Your task to perform on an android device: turn on priority inbox in the gmail app Image 0: 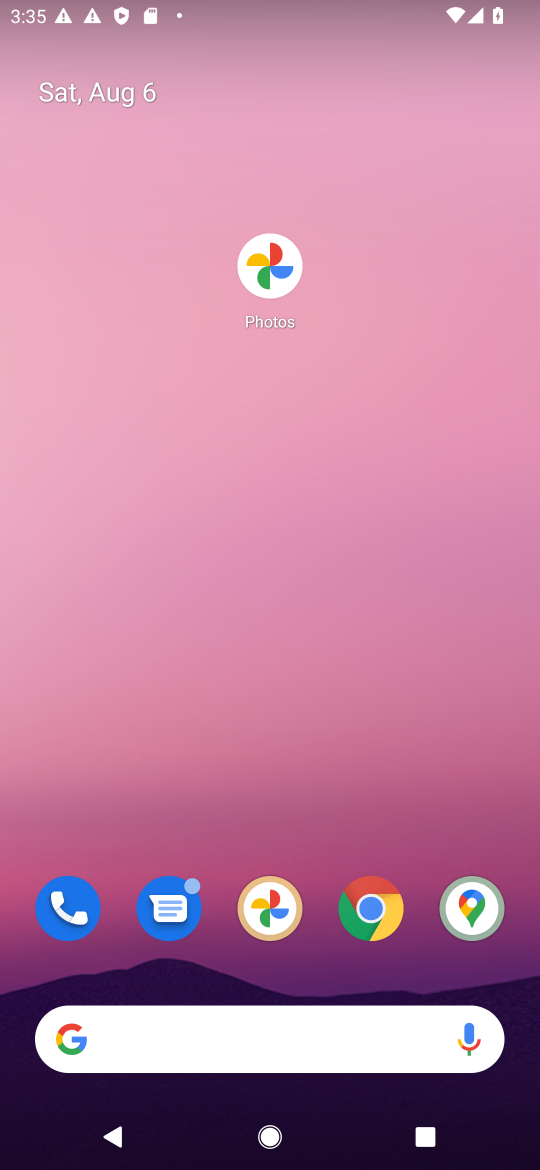
Step 0: drag from (266, 1006) to (366, 13)
Your task to perform on an android device: turn on priority inbox in the gmail app Image 1: 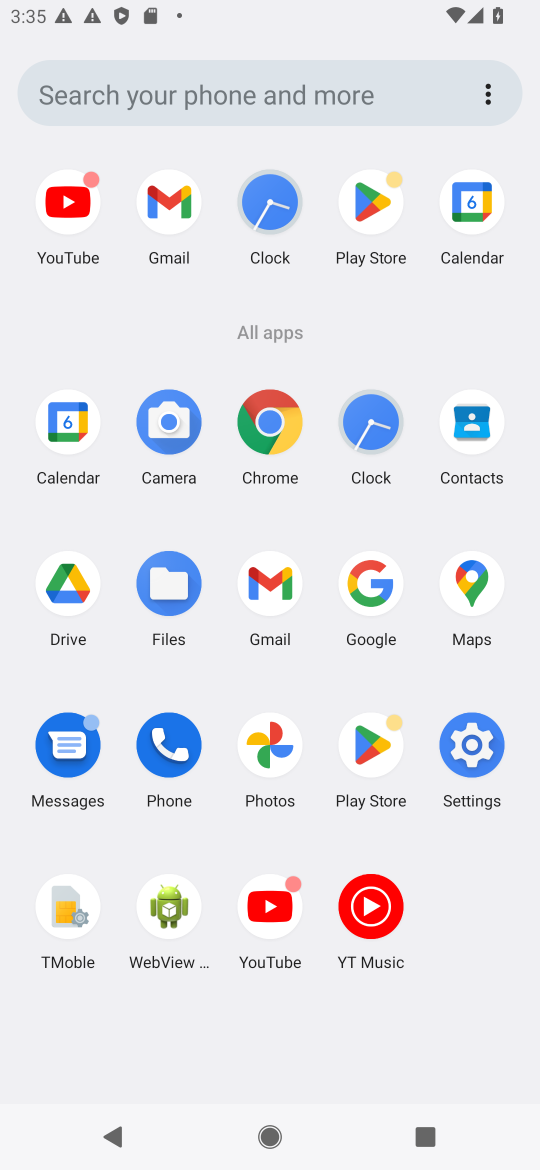
Step 1: click (274, 602)
Your task to perform on an android device: turn on priority inbox in the gmail app Image 2: 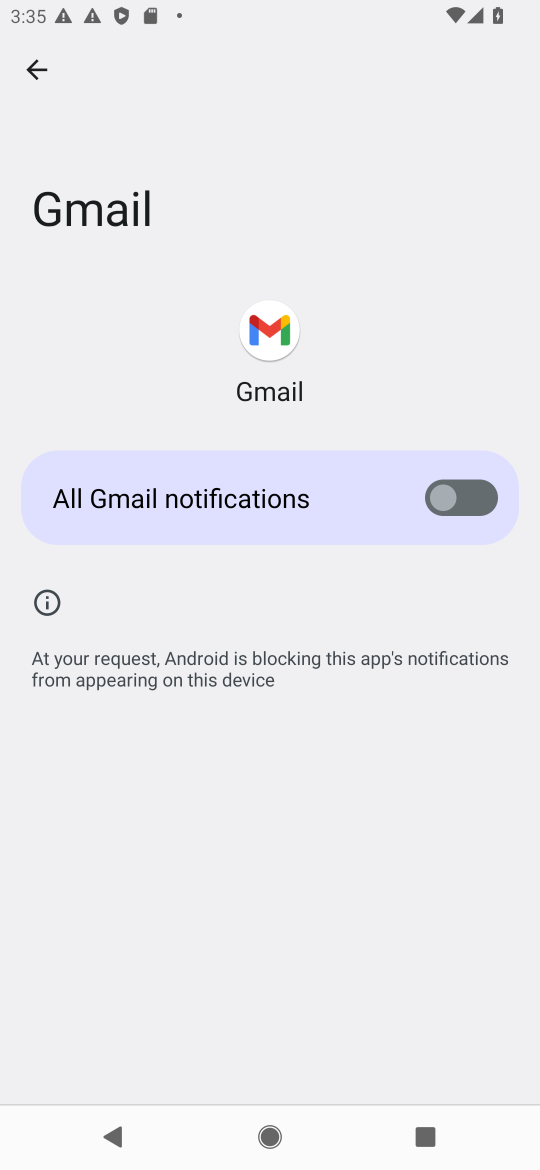
Step 2: click (28, 47)
Your task to perform on an android device: turn on priority inbox in the gmail app Image 3: 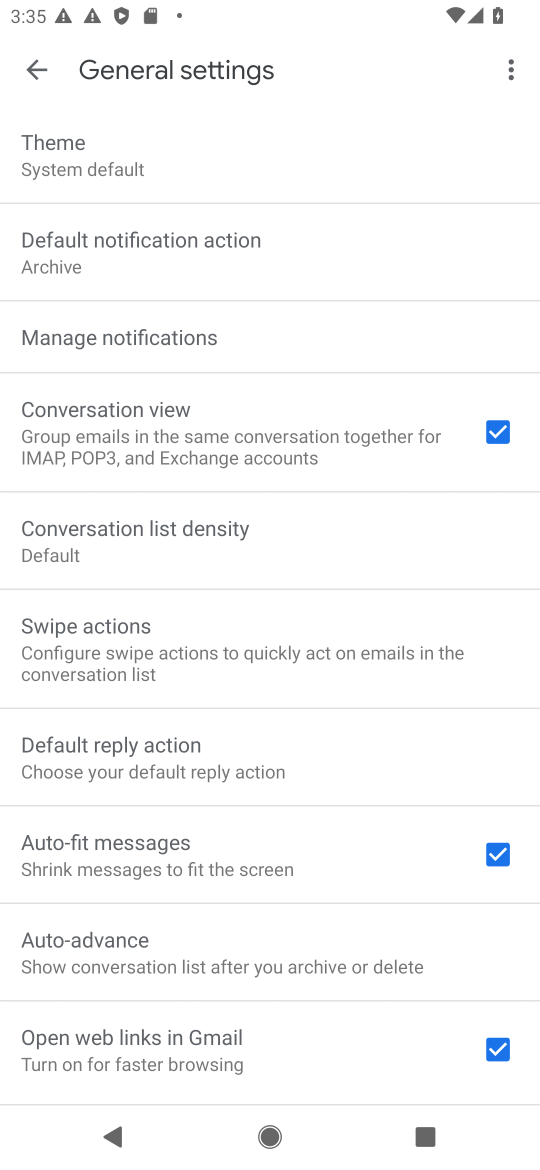
Step 3: click (31, 60)
Your task to perform on an android device: turn on priority inbox in the gmail app Image 4: 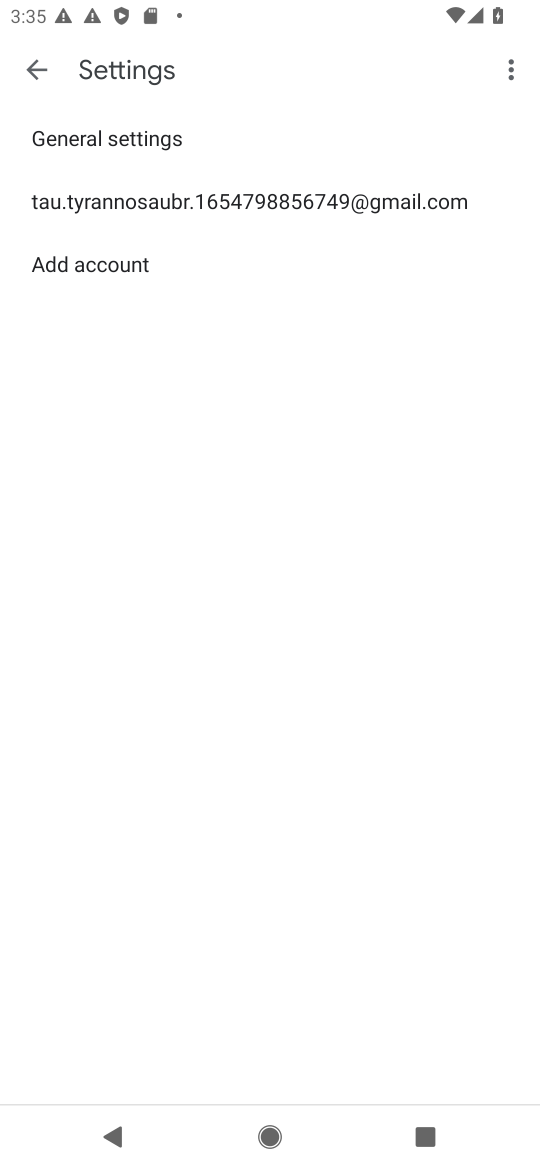
Step 4: click (153, 201)
Your task to perform on an android device: turn on priority inbox in the gmail app Image 5: 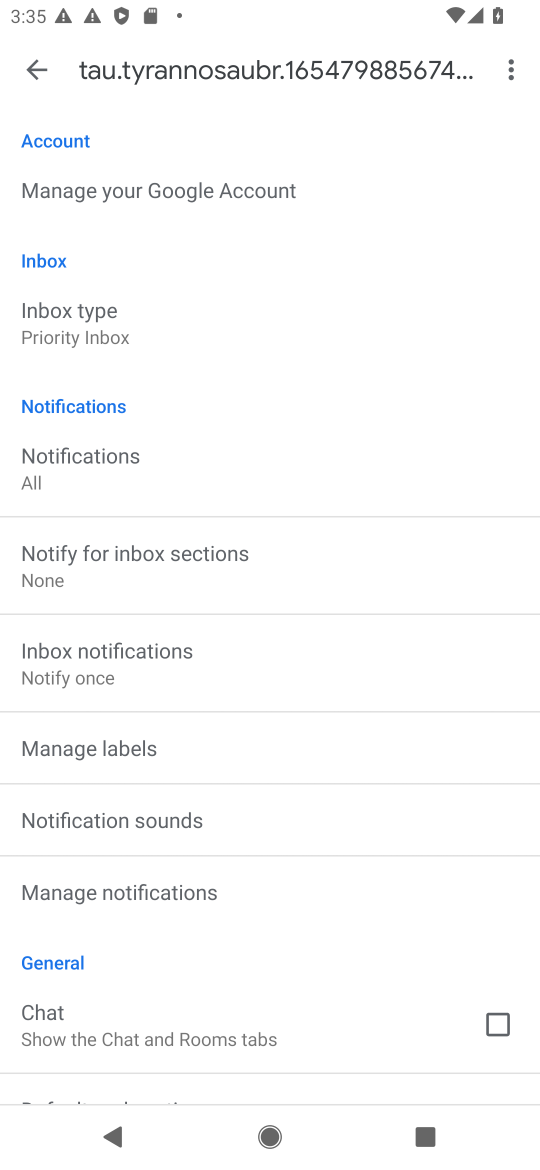
Step 5: click (114, 336)
Your task to perform on an android device: turn on priority inbox in the gmail app Image 6: 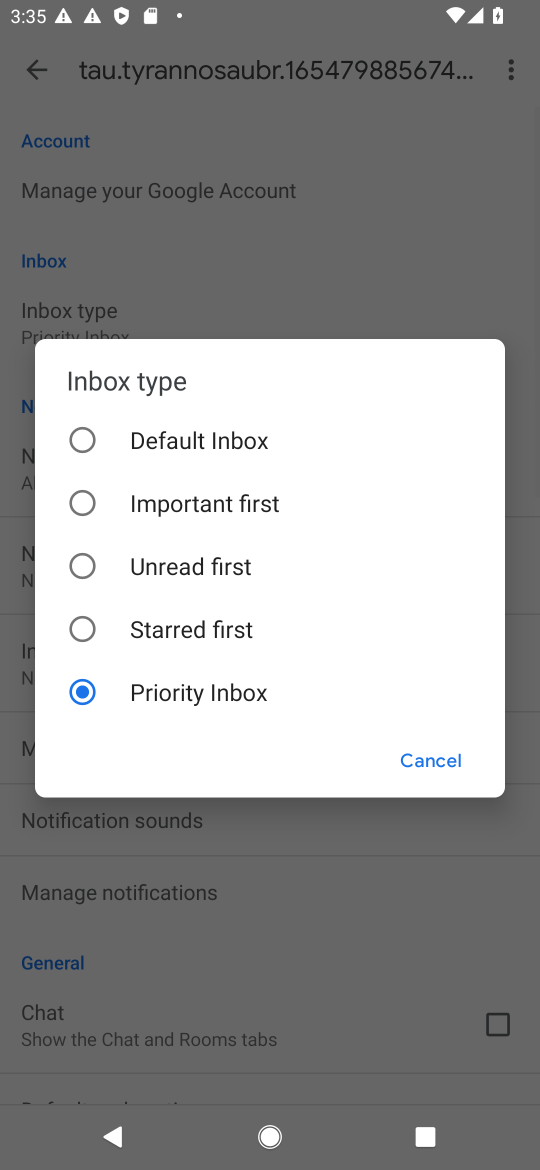
Step 6: task complete